Your task to perform on an android device: turn on wifi Image 0: 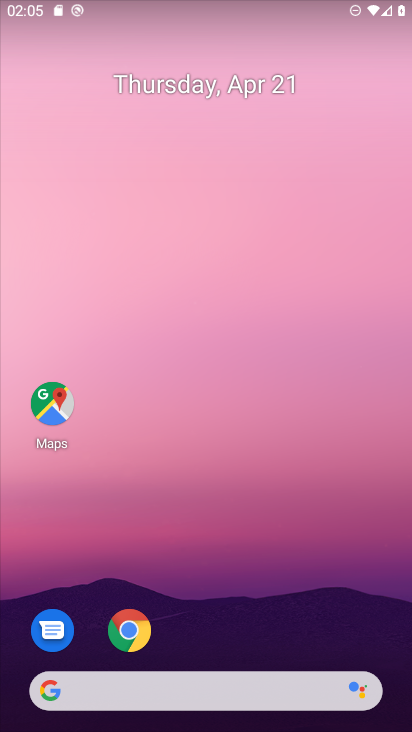
Step 0: drag from (298, 604) to (186, 78)
Your task to perform on an android device: turn on wifi Image 1: 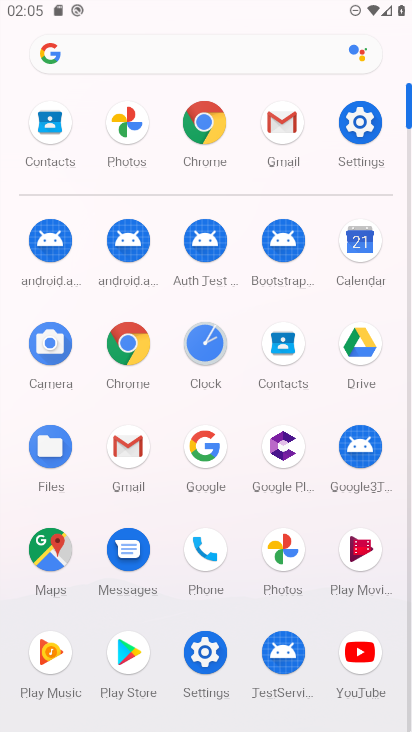
Step 1: click (365, 138)
Your task to perform on an android device: turn on wifi Image 2: 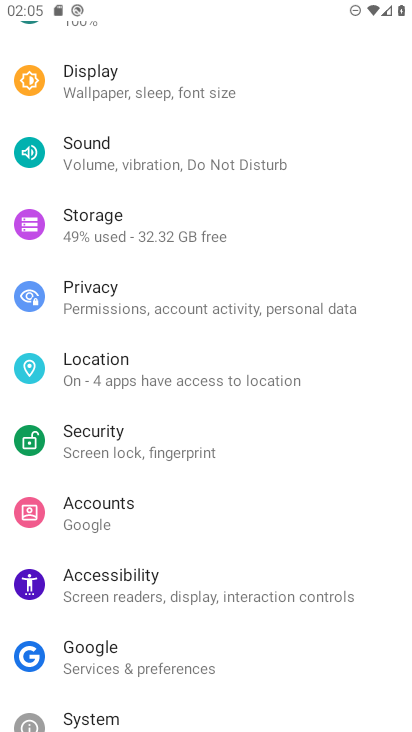
Step 2: drag from (266, 263) to (306, 659)
Your task to perform on an android device: turn on wifi Image 3: 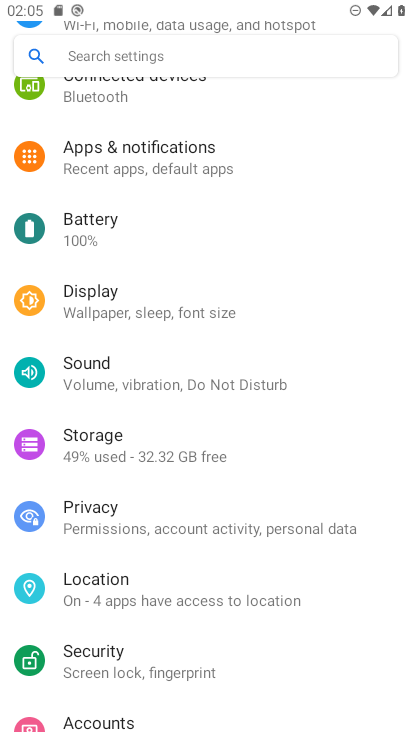
Step 3: drag from (269, 198) to (301, 578)
Your task to perform on an android device: turn on wifi Image 4: 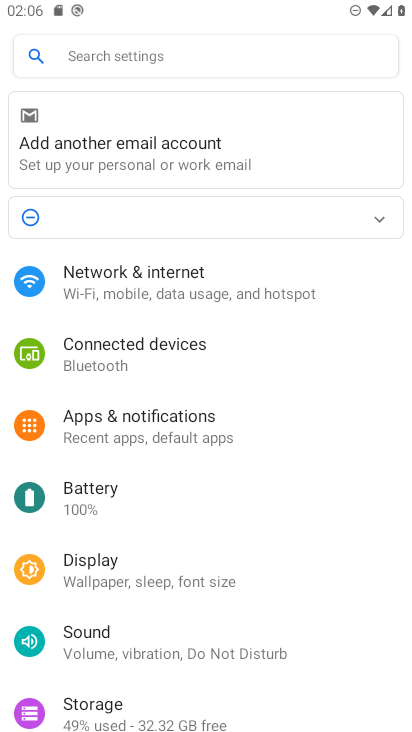
Step 4: click (206, 270)
Your task to perform on an android device: turn on wifi Image 5: 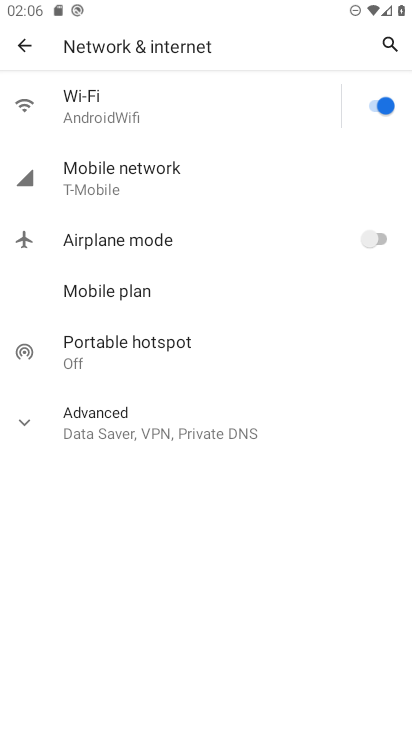
Step 5: click (369, 99)
Your task to perform on an android device: turn on wifi Image 6: 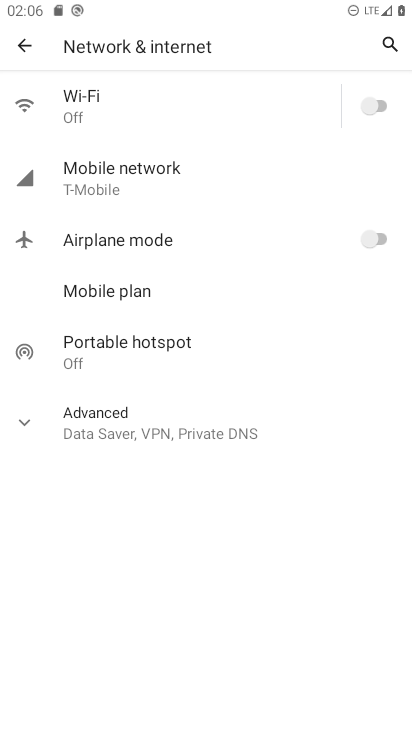
Step 6: click (372, 103)
Your task to perform on an android device: turn on wifi Image 7: 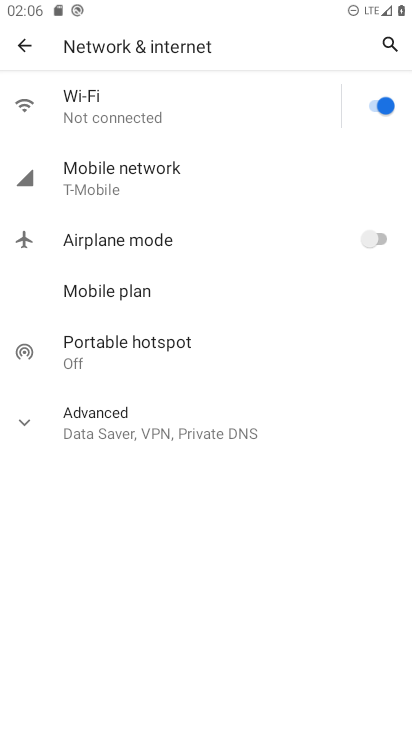
Step 7: task complete